Your task to perform on an android device: Go to battery settings Image 0: 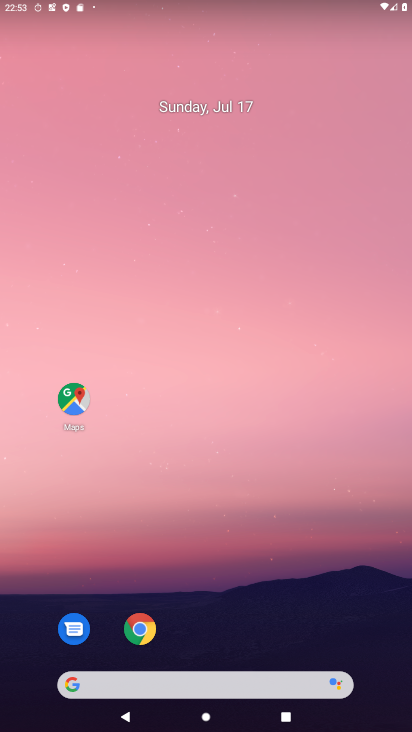
Step 0: drag from (232, 719) to (241, 84)
Your task to perform on an android device: Go to battery settings Image 1: 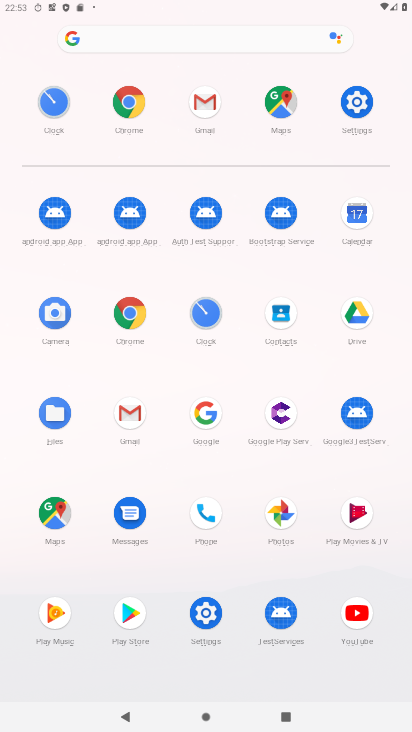
Step 1: click (357, 98)
Your task to perform on an android device: Go to battery settings Image 2: 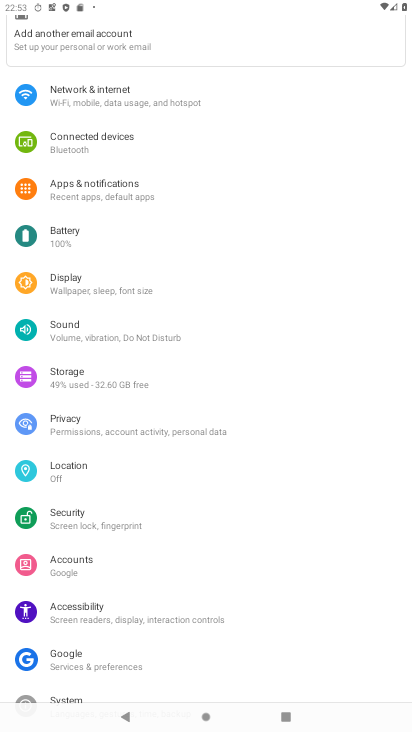
Step 2: click (62, 233)
Your task to perform on an android device: Go to battery settings Image 3: 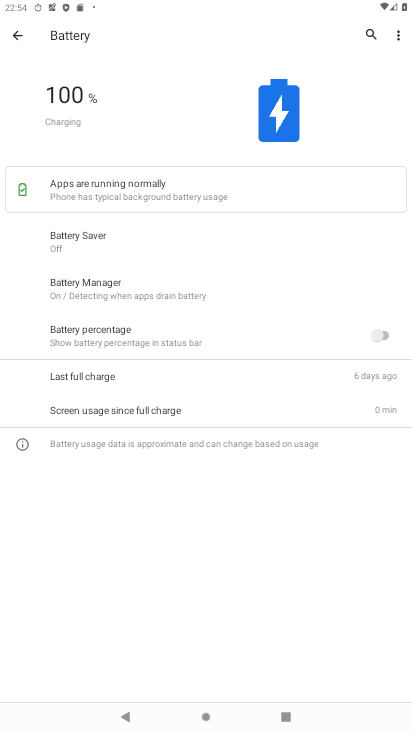
Step 3: task complete